Your task to perform on an android device: Open Chrome and go to settings Image 0: 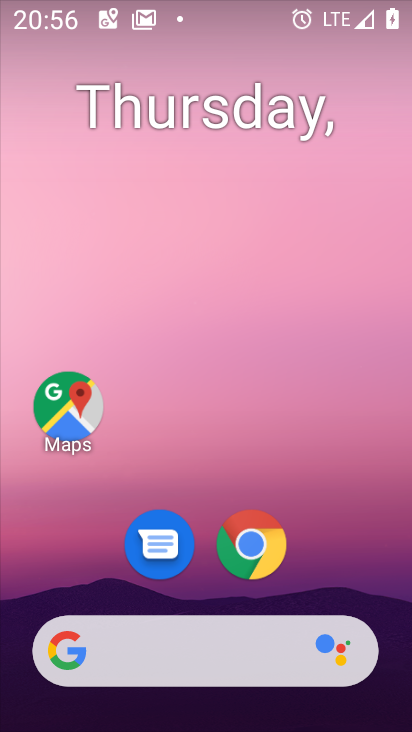
Step 0: click (263, 539)
Your task to perform on an android device: Open Chrome and go to settings Image 1: 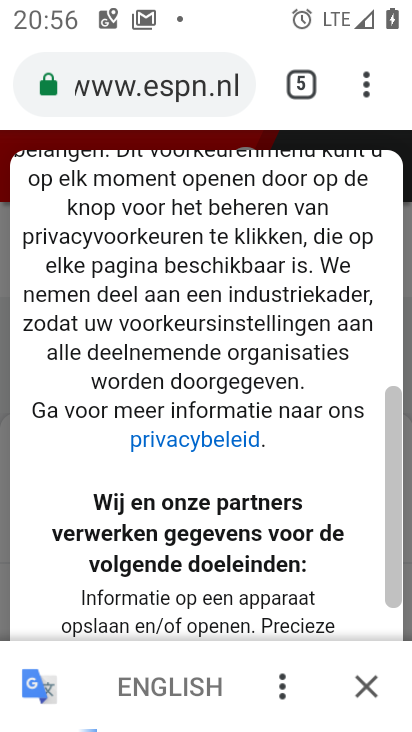
Step 1: click (357, 68)
Your task to perform on an android device: Open Chrome and go to settings Image 2: 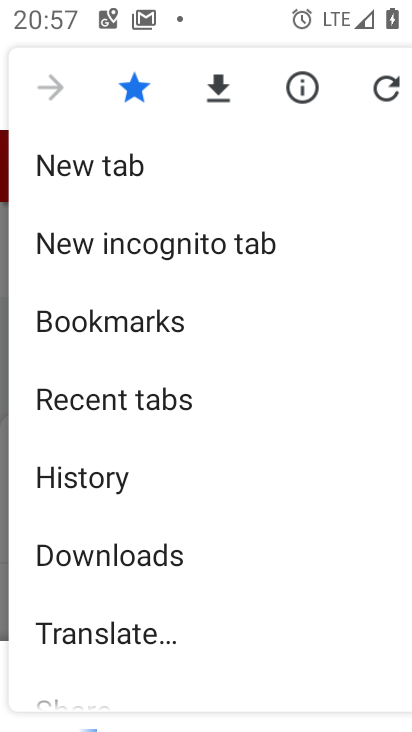
Step 2: drag from (154, 499) to (222, 0)
Your task to perform on an android device: Open Chrome and go to settings Image 3: 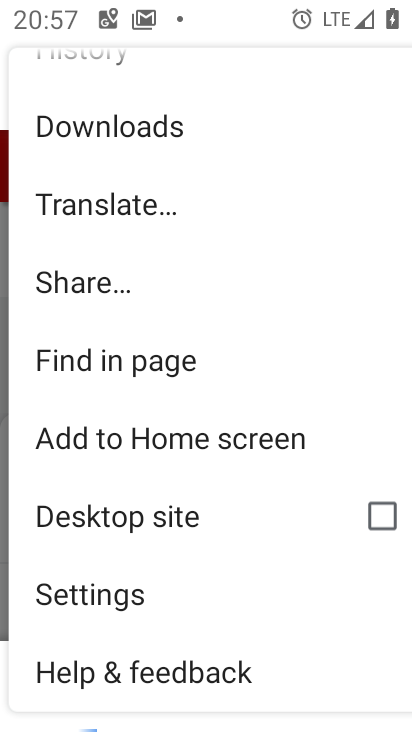
Step 3: click (85, 579)
Your task to perform on an android device: Open Chrome and go to settings Image 4: 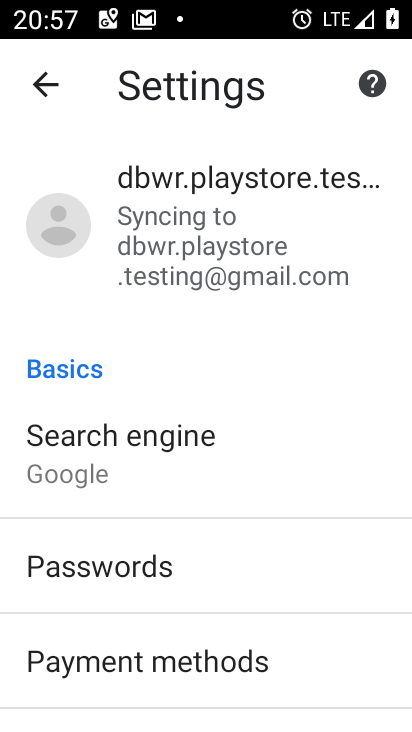
Step 4: task complete